Your task to perform on an android device: Do I have any events today? Image 0: 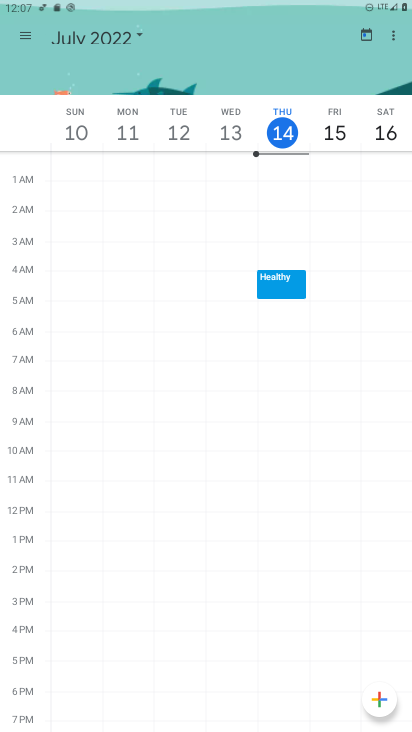
Step 0: press home button
Your task to perform on an android device: Do I have any events today? Image 1: 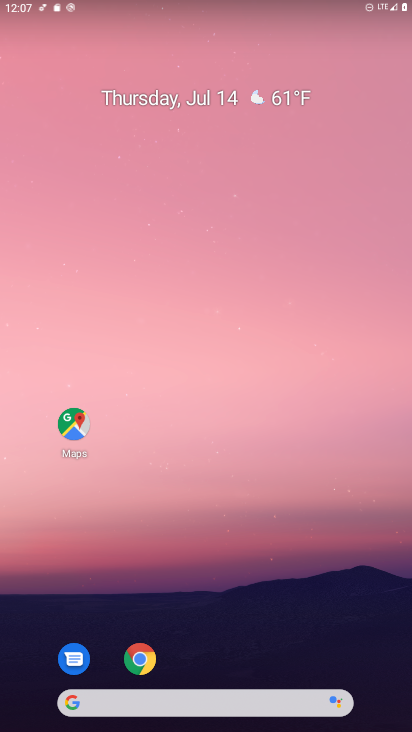
Step 1: drag from (359, 652) to (309, 130)
Your task to perform on an android device: Do I have any events today? Image 2: 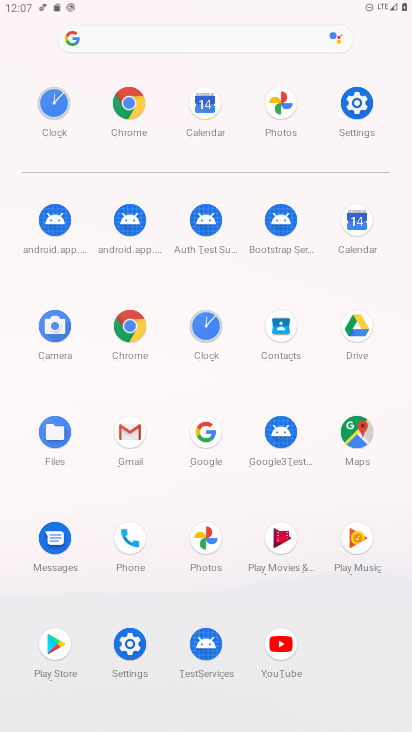
Step 2: click (359, 224)
Your task to perform on an android device: Do I have any events today? Image 3: 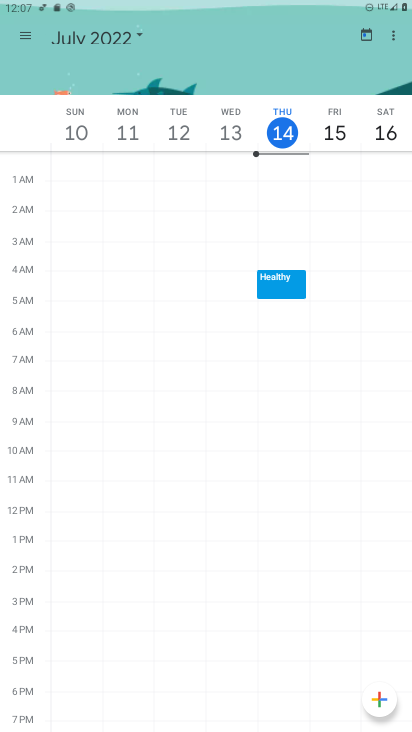
Step 3: click (24, 36)
Your task to perform on an android device: Do I have any events today? Image 4: 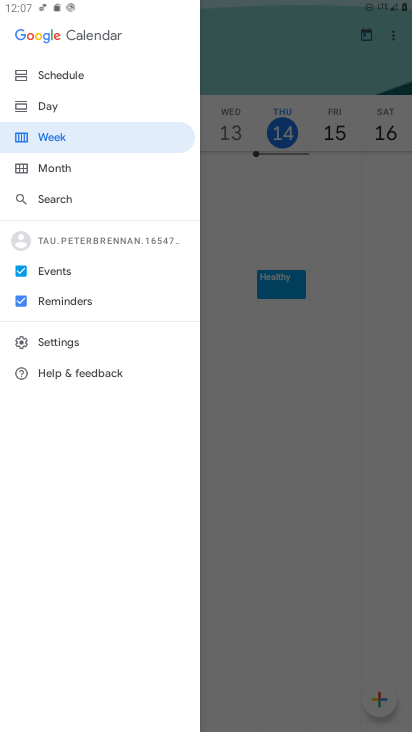
Step 4: click (50, 103)
Your task to perform on an android device: Do I have any events today? Image 5: 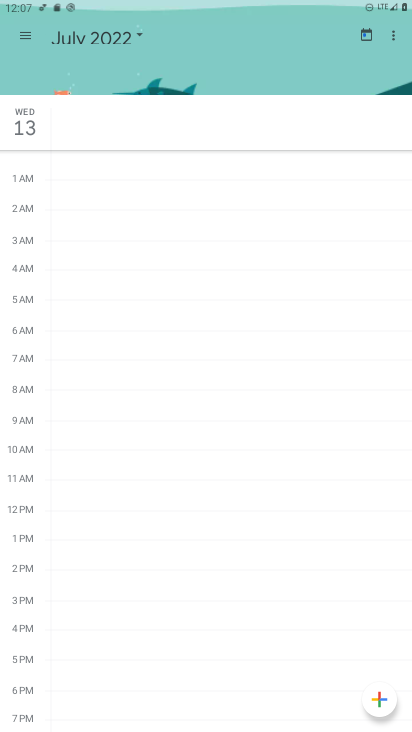
Step 5: click (136, 33)
Your task to perform on an android device: Do I have any events today? Image 6: 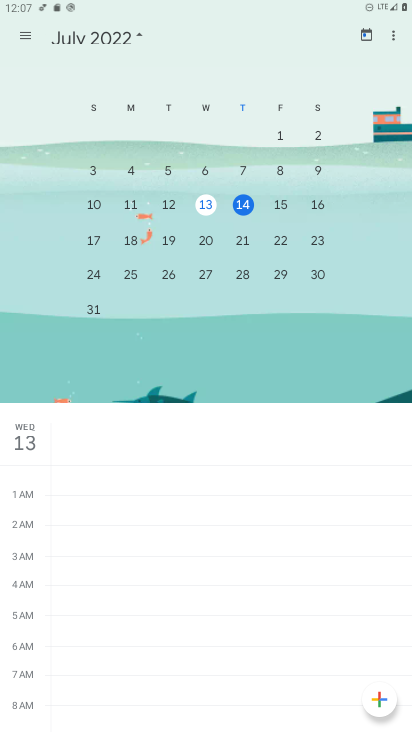
Step 6: click (240, 203)
Your task to perform on an android device: Do I have any events today? Image 7: 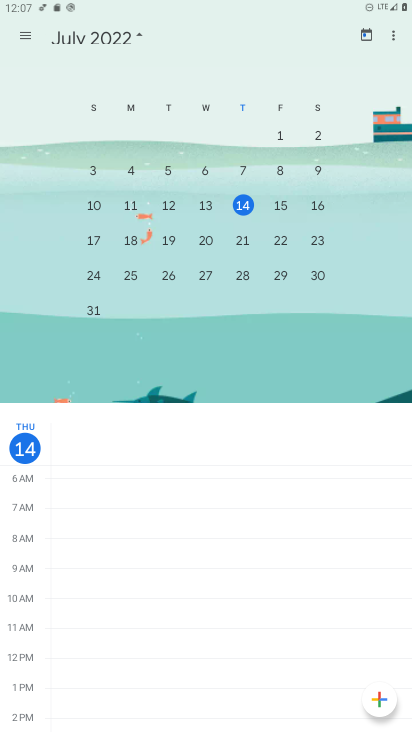
Step 7: click (185, 514)
Your task to perform on an android device: Do I have any events today? Image 8: 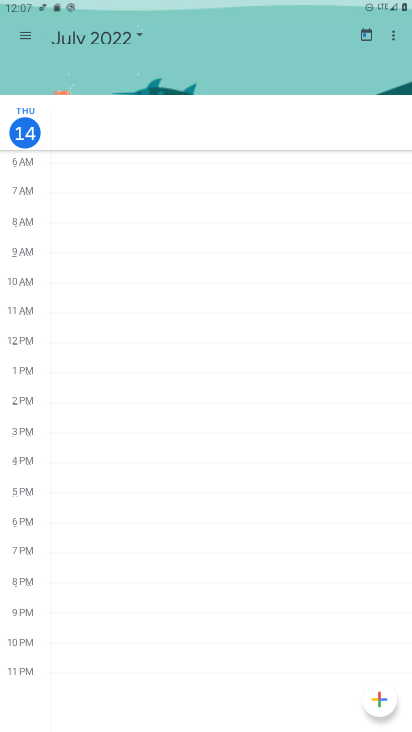
Step 8: task complete